Your task to perform on an android device: Open Google Chrome Image 0: 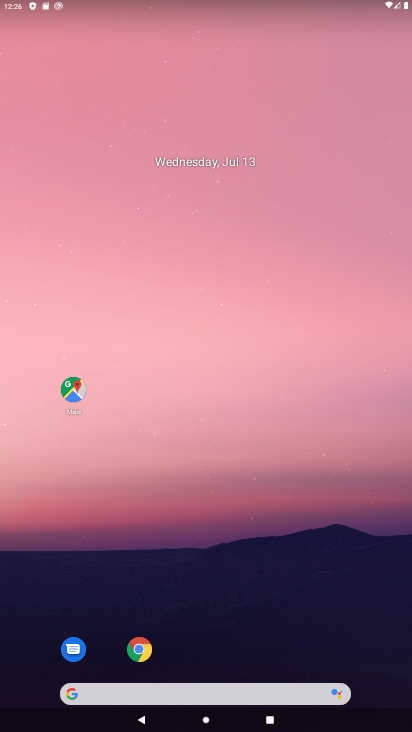
Step 0: drag from (178, 691) to (243, 133)
Your task to perform on an android device: Open Google Chrome Image 1: 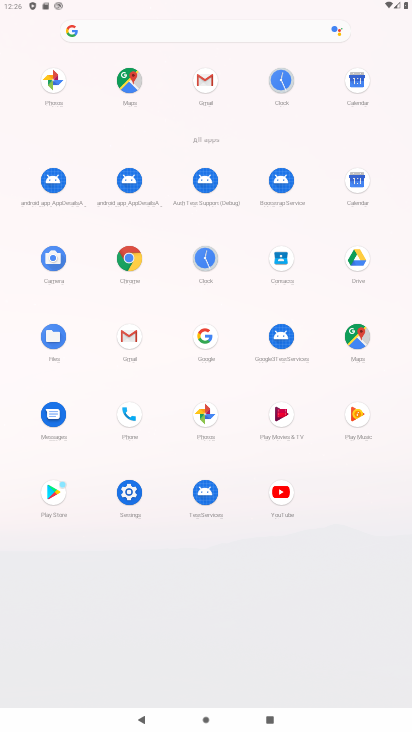
Step 1: click (121, 268)
Your task to perform on an android device: Open Google Chrome Image 2: 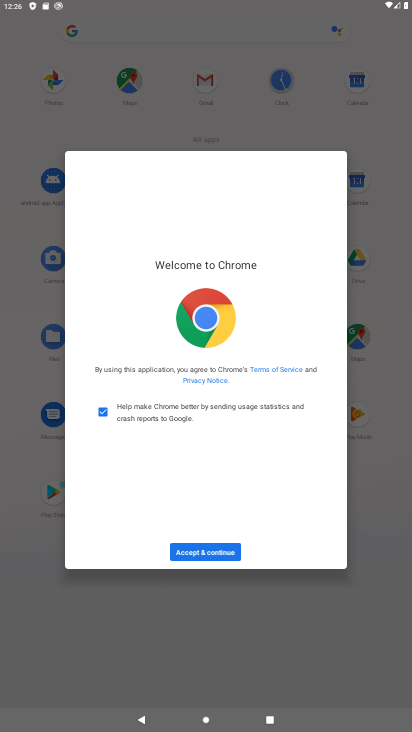
Step 2: click (230, 553)
Your task to perform on an android device: Open Google Chrome Image 3: 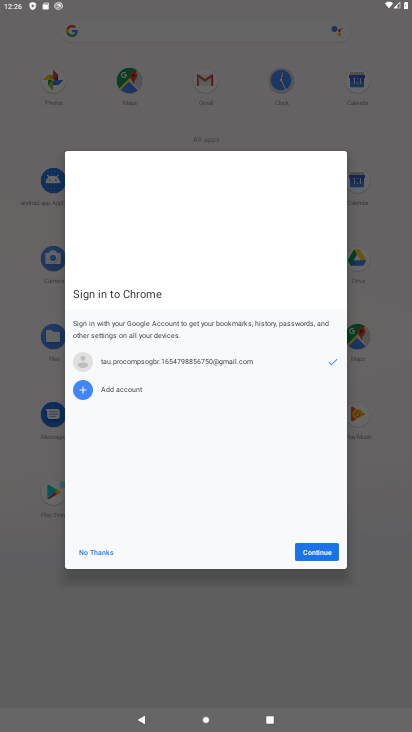
Step 3: click (345, 551)
Your task to perform on an android device: Open Google Chrome Image 4: 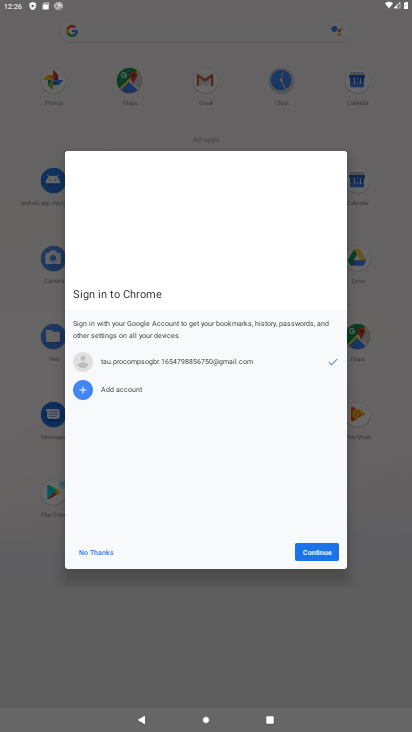
Step 4: click (328, 555)
Your task to perform on an android device: Open Google Chrome Image 5: 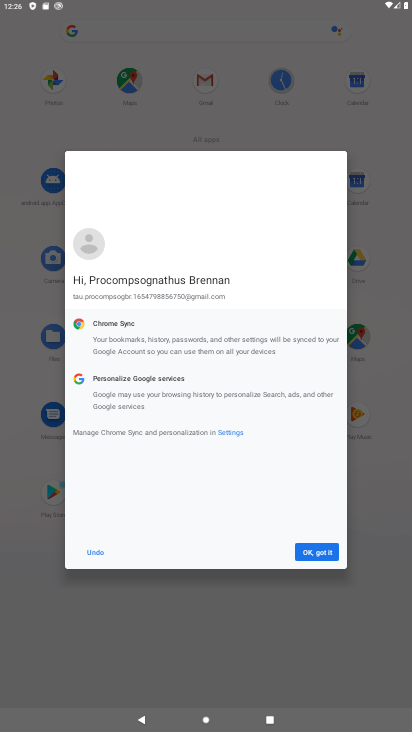
Step 5: click (313, 549)
Your task to perform on an android device: Open Google Chrome Image 6: 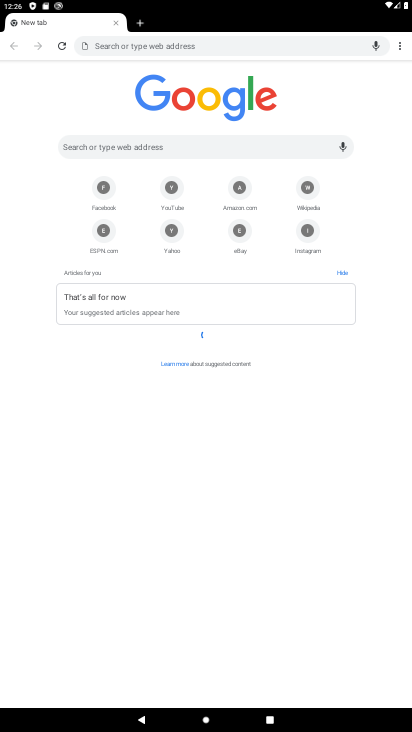
Step 6: task complete